Your task to perform on an android device: refresh tabs in the chrome app Image 0: 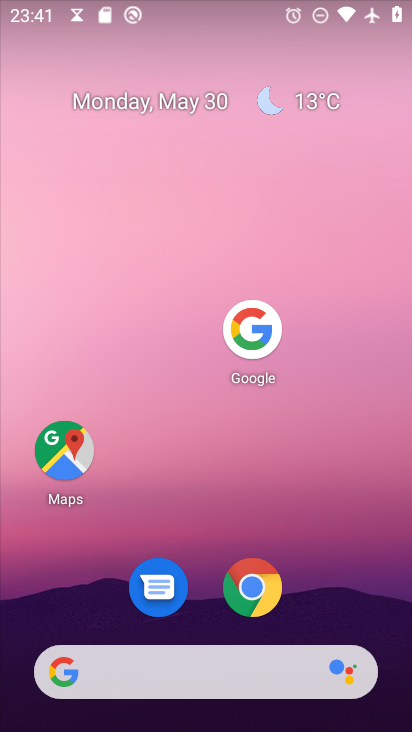
Step 0: press home button
Your task to perform on an android device: refresh tabs in the chrome app Image 1: 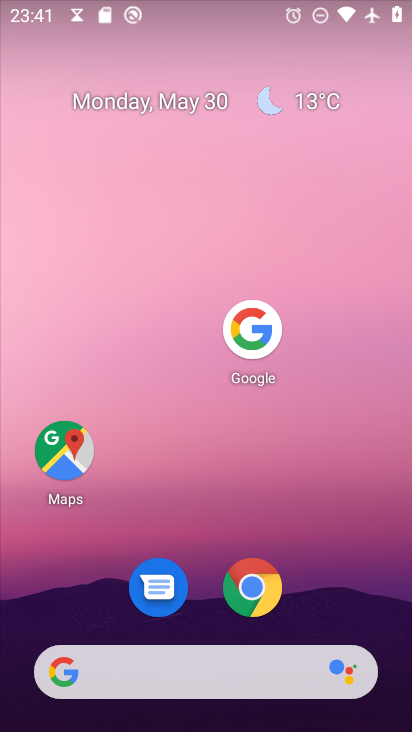
Step 1: click (246, 594)
Your task to perform on an android device: refresh tabs in the chrome app Image 2: 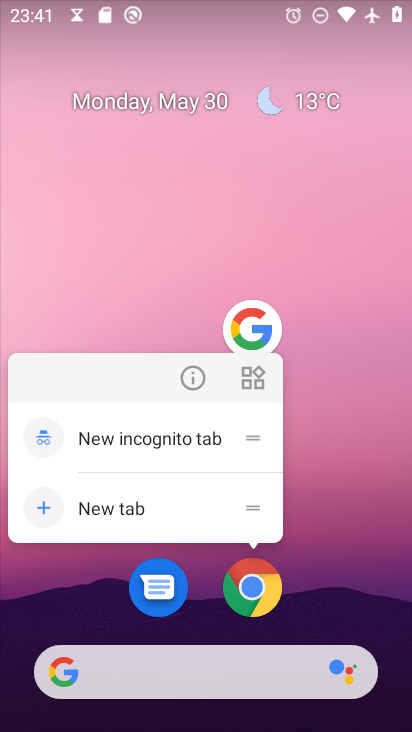
Step 2: click (256, 594)
Your task to perform on an android device: refresh tabs in the chrome app Image 3: 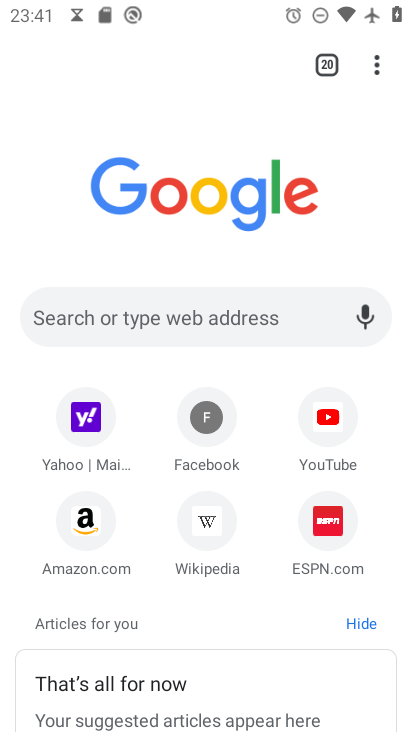
Step 3: click (376, 81)
Your task to perform on an android device: refresh tabs in the chrome app Image 4: 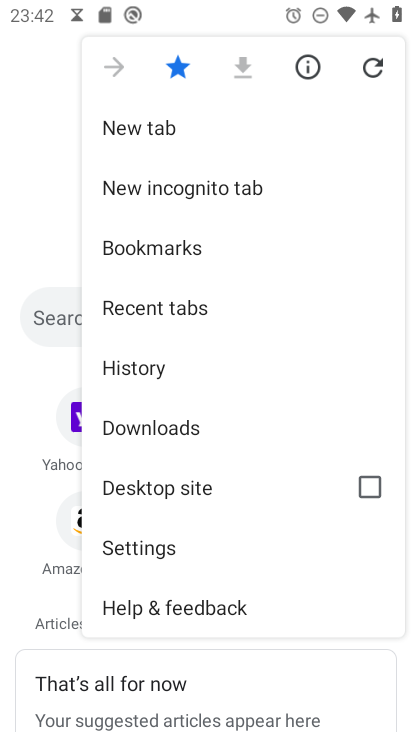
Step 4: click (364, 65)
Your task to perform on an android device: refresh tabs in the chrome app Image 5: 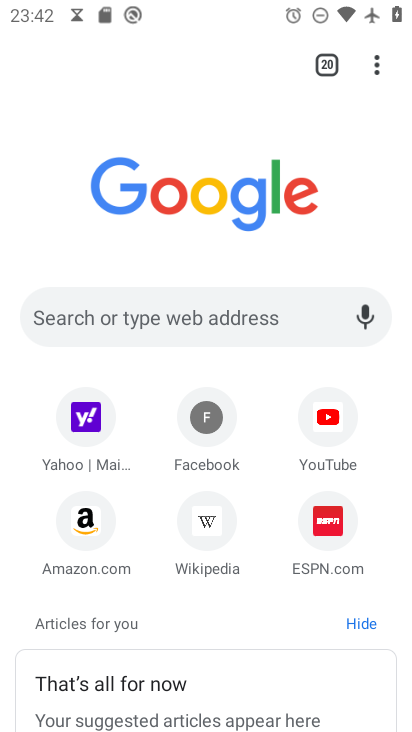
Step 5: task complete